Your task to perform on an android device: open wifi settings Image 0: 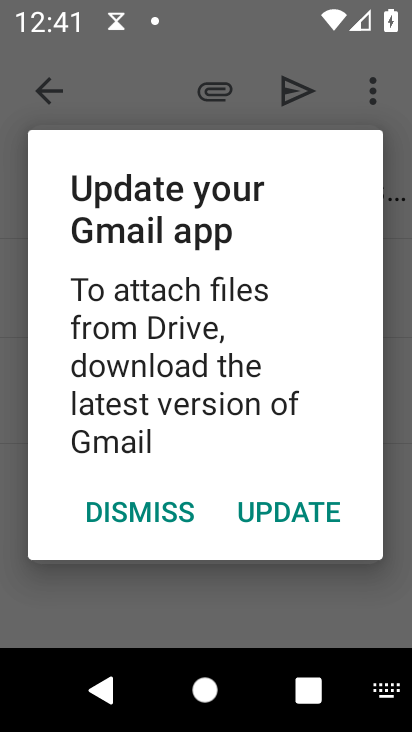
Step 0: click (136, 513)
Your task to perform on an android device: open wifi settings Image 1: 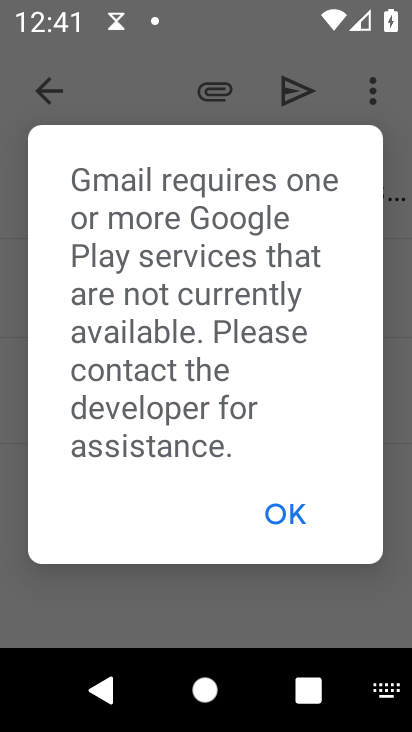
Step 1: click (317, 526)
Your task to perform on an android device: open wifi settings Image 2: 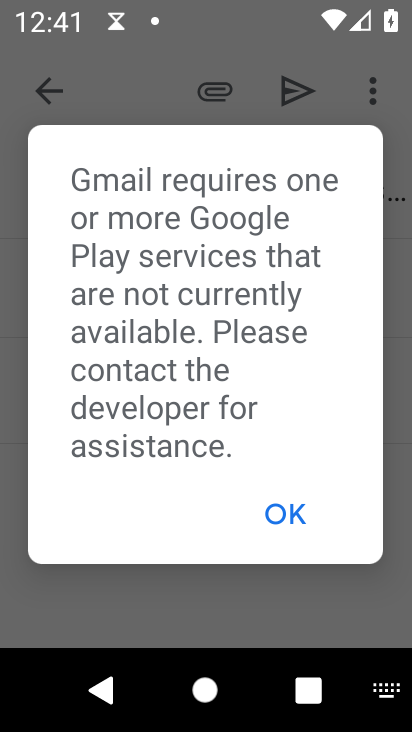
Step 2: click (288, 520)
Your task to perform on an android device: open wifi settings Image 3: 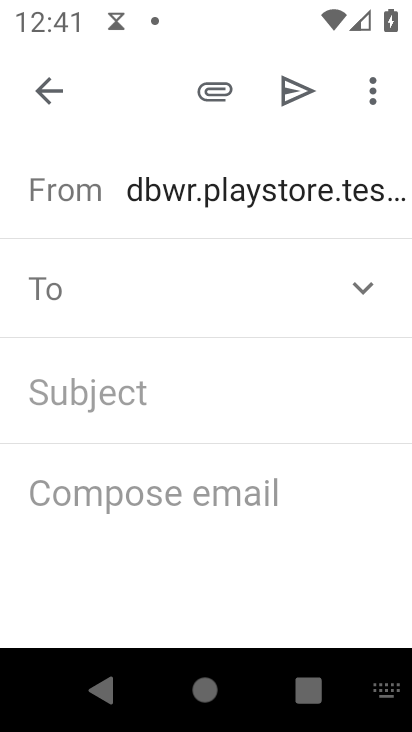
Step 3: click (43, 94)
Your task to perform on an android device: open wifi settings Image 4: 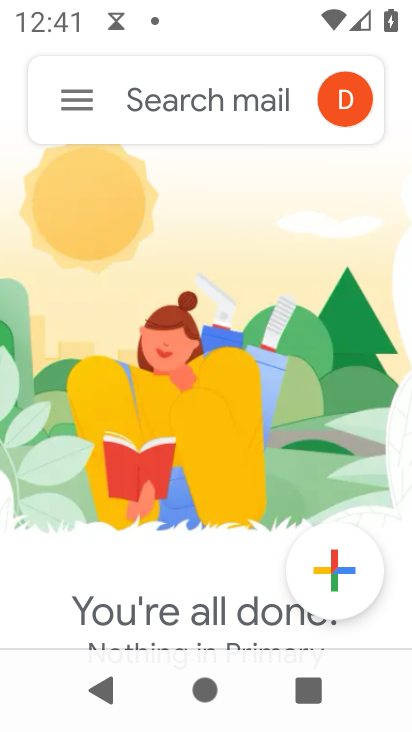
Step 4: click (74, 105)
Your task to perform on an android device: open wifi settings Image 5: 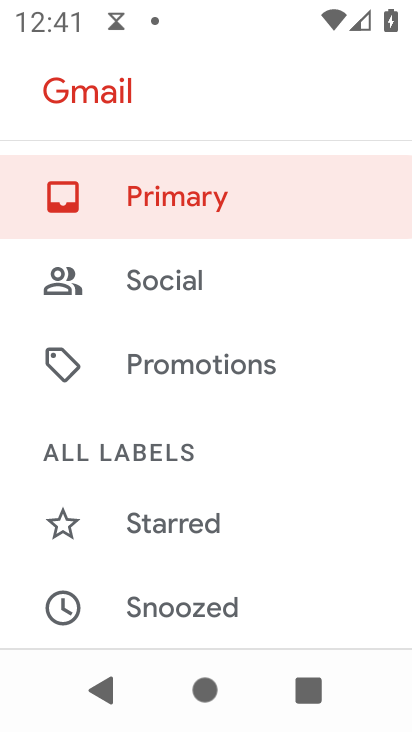
Step 5: click (378, 470)
Your task to perform on an android device: open wifi settings Image 6: 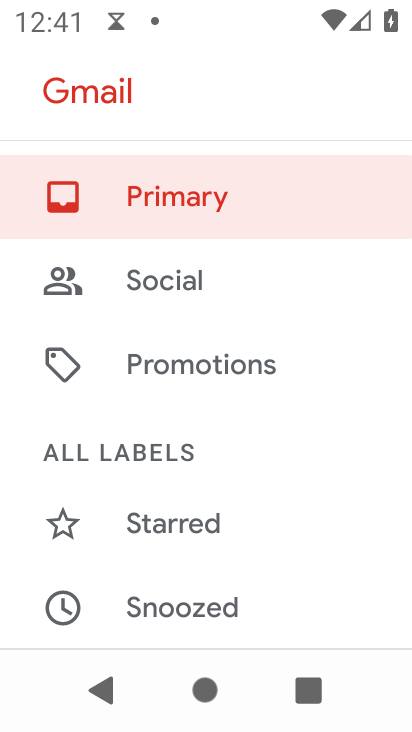
Step 6: press back button
Your task to perform on an android device: open wifi settings Image 7: 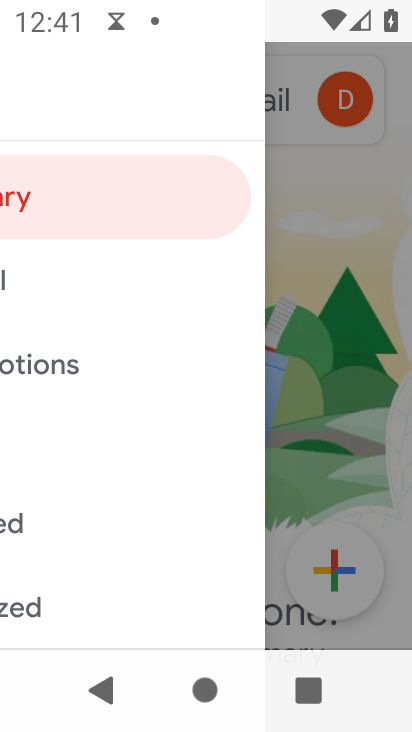
Step 7: press back button
Your task to perform on an android device: open wifi settings Image 8: 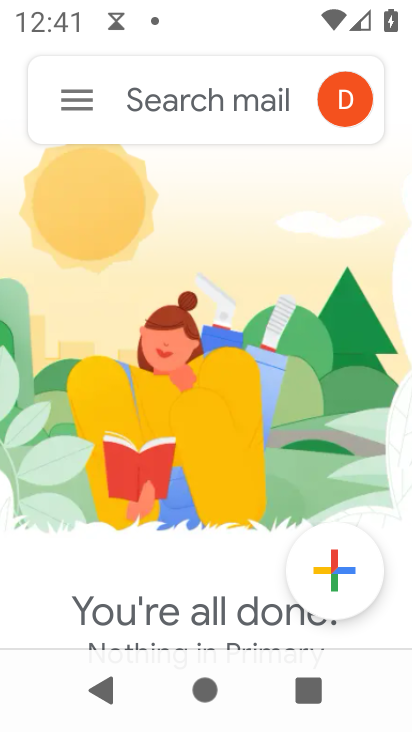
Step 8: press back button
Your task to perform on an android device: open wifi settings Image 9: 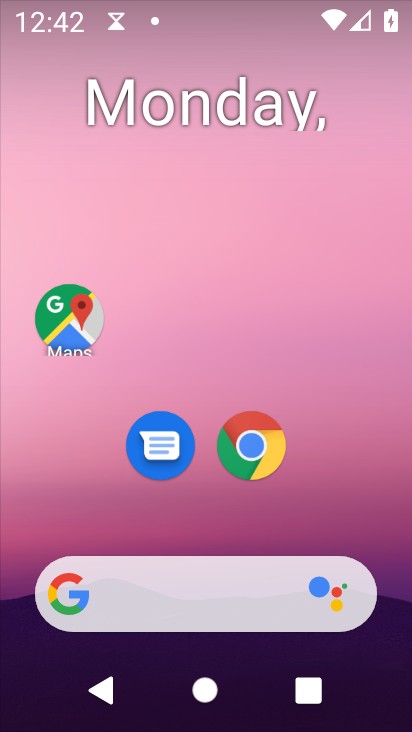
Step 9: click (258, 32)
Your task to perform on an android device: open wifi settings Image 10: 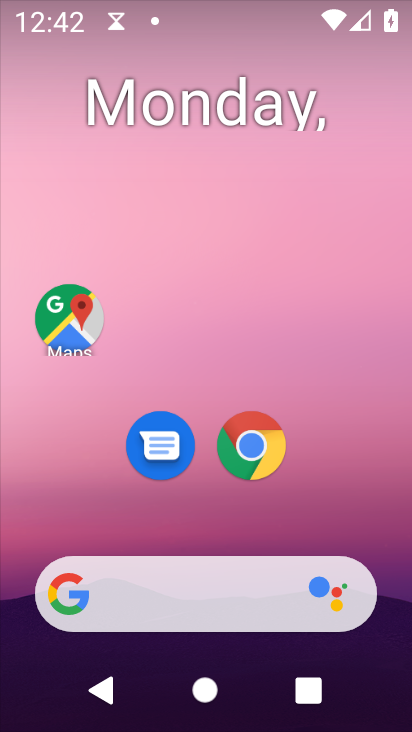
Step 10: drag from (308, 524) to (165, 98)
Your task to perform on an android device: open wifi settings Image 11: 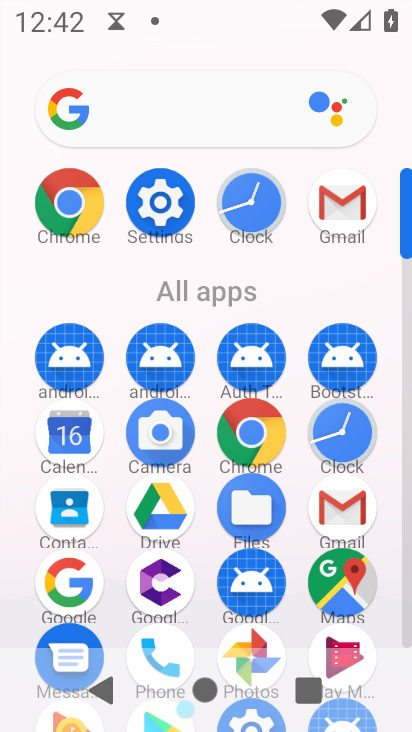
Step 11: click (157, 208)
Your task to perform on an android device: open wifi settings Image 12: 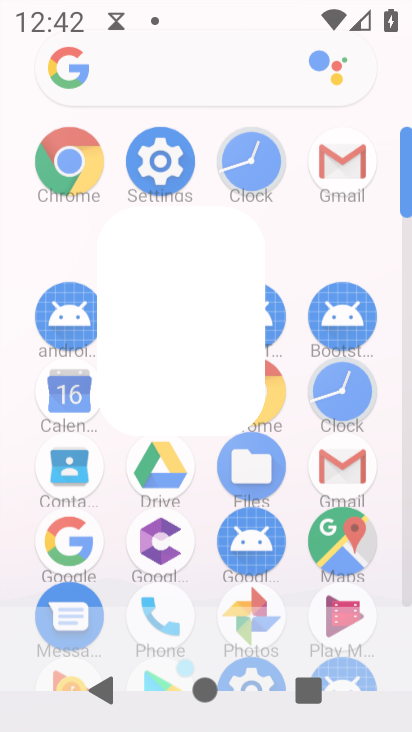
Step 12: click (157, 206)
Your task to perform on an android device: open wifi settings Image 13: 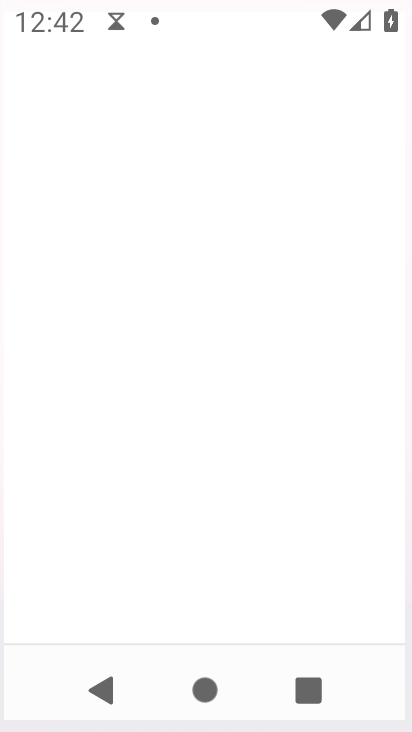
Step 13: click (157, 205)
Your task to perform on an android device: open wifi settings Image 14: 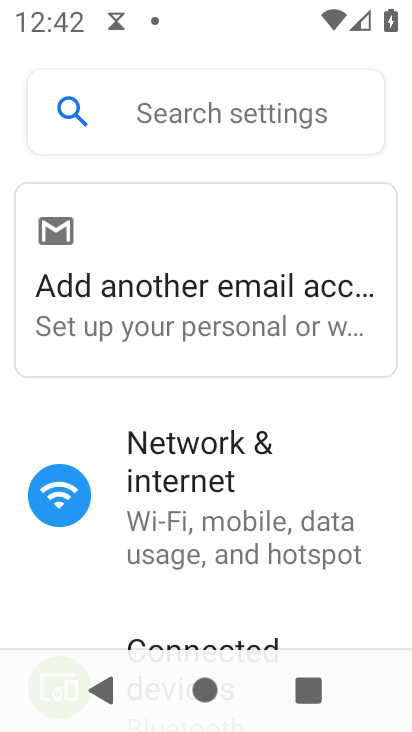
Step 14: click (207, 521)
Your task to perform on an android device: open wifi settings Image 15: 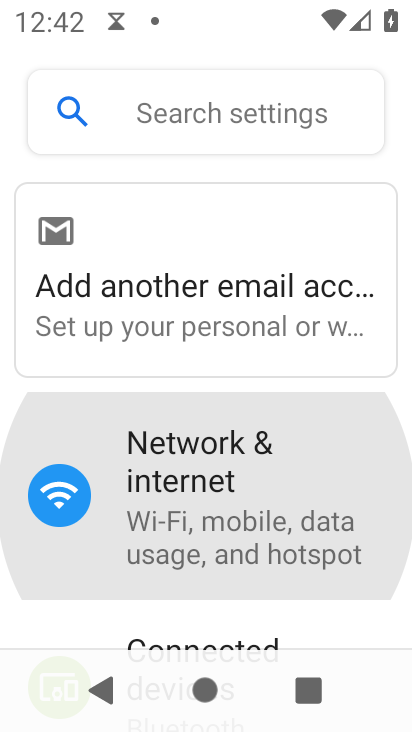
Step 15: click (207, 521)
Your task to perform on an android device: open wifi settings Image 16: 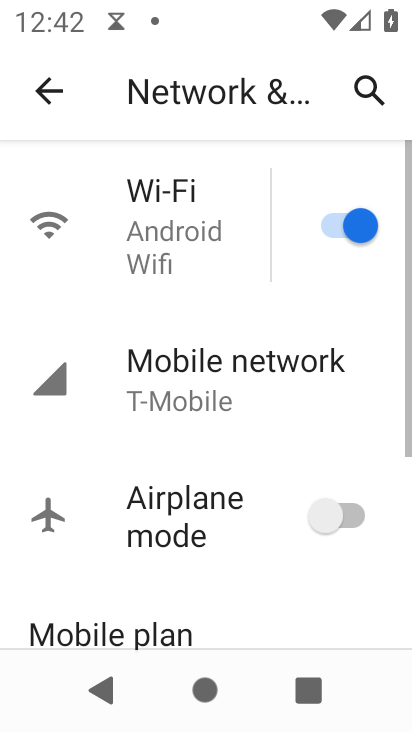
Step 16: task complete